Your task to perform on an android device: open device folders in google photos Image 0: 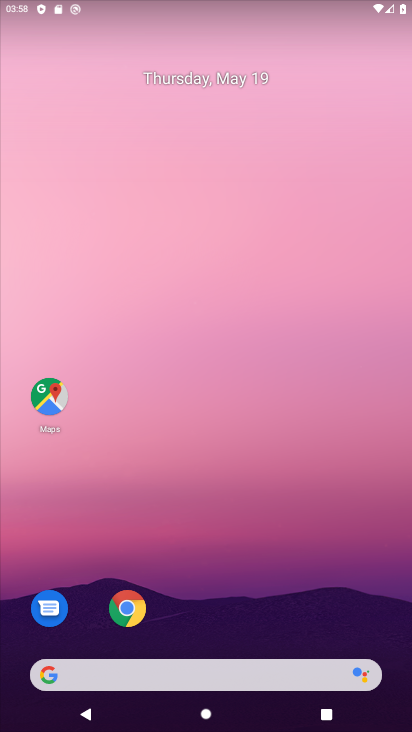
Step 0: drag from (224, 578) to (197, 148)
Your task to perform on an android device: open device folders in google photos Image 1: 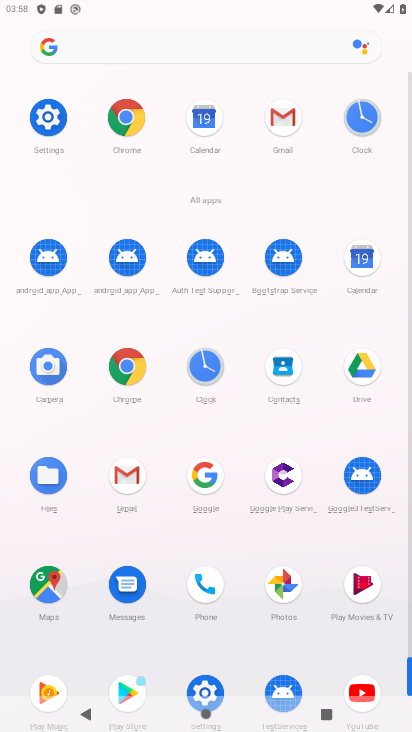
Step 1: click (284, 583)
Your task to perform on an android device: open device folders in google photos Image 2: 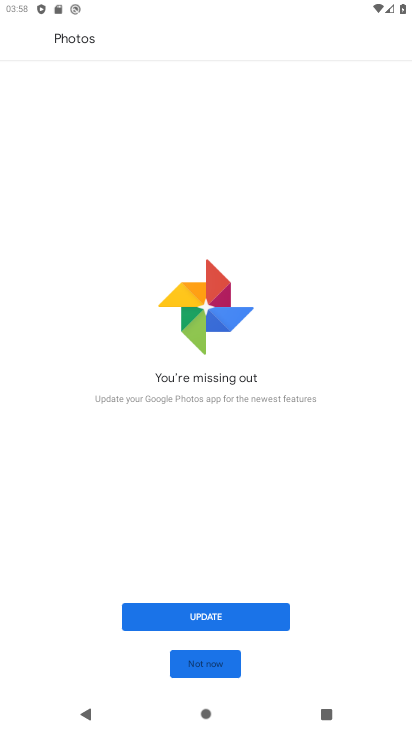
Step 2: click (225, 610)
Your task to perform on an android device: open device folders in google photos Image 3: 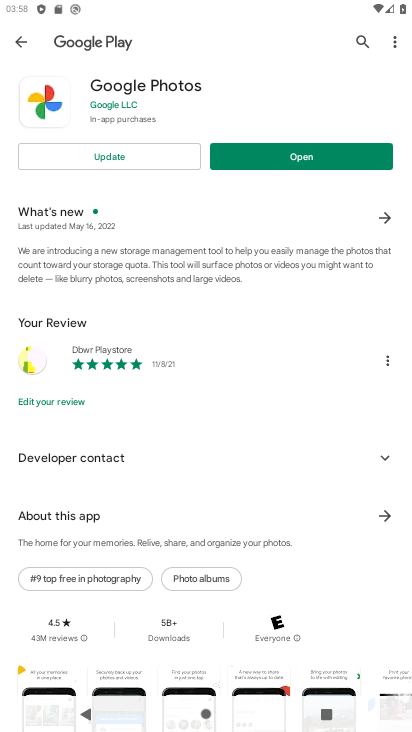
Step 3: click (125, 158)
Your task to perform on an android device: open device folders in google photos Image 4: 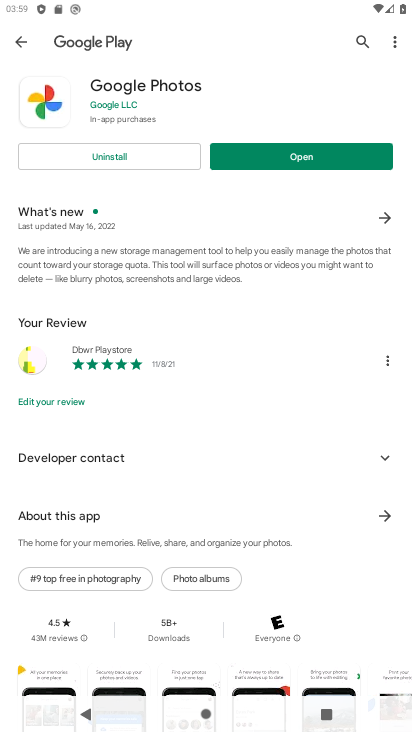
Step 4: click (293, 153)
Your task to perform on an android device: open device folders in google photos Image 5: 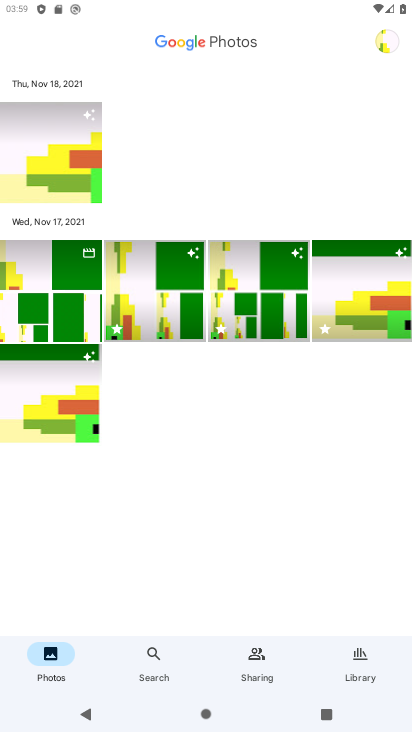
Step 5: click (365, 658)
Your task to perform on an android device: open device folders in google photos Image 6: 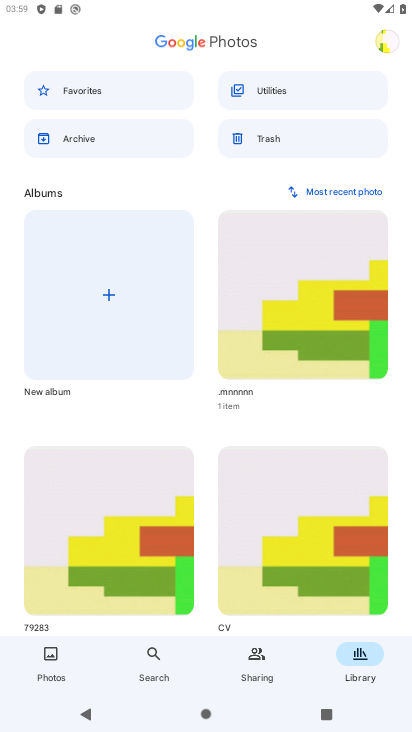
Step 6: drag from (156, 425) to (186, 334)
Your task to perform on an android device: open device folders in google photos Image 7: 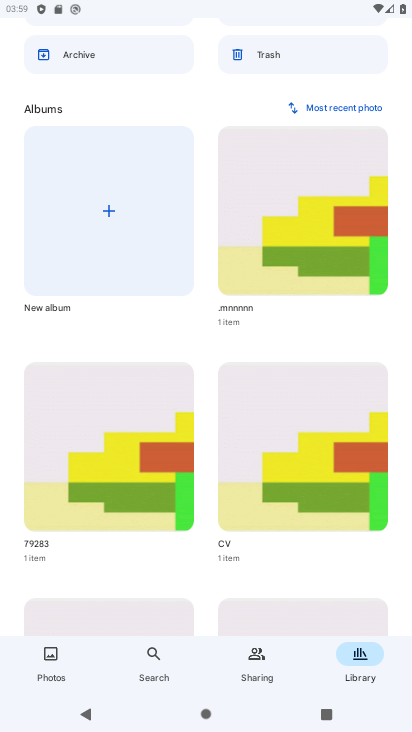
Step 7: drag from (228, 561) to (279, 468)
Your task to perform on an android device: open device folders in google photos Image 8: 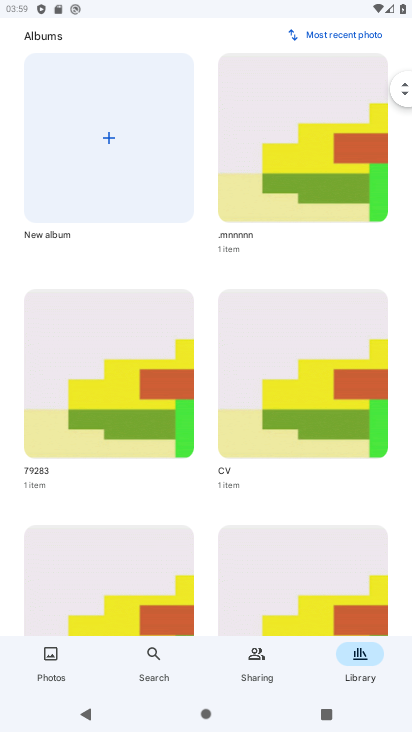
Step 8: drag from (240, 553) to (273, 349)
Your task to perform on an android device: open device folders in google photos Image 9: 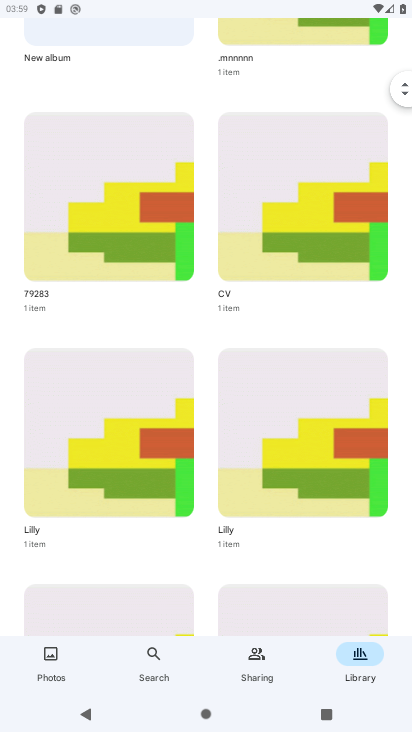
Step 9: drag from (247, 521) to (298, 250)
Your task to perform on an android device: open device folders in google photos Image 10: 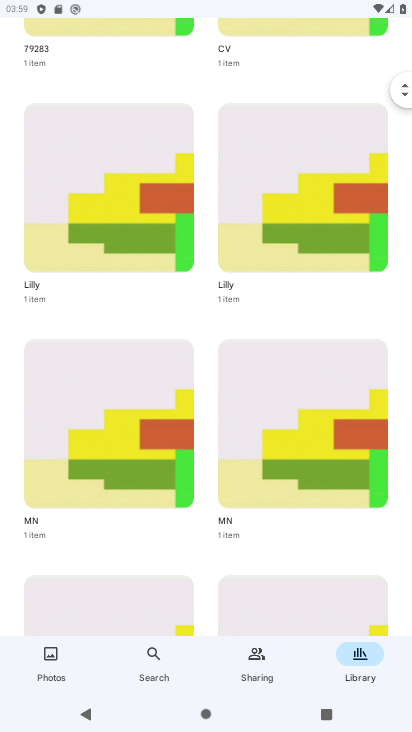
Step 10: drag from (233, 547) to (294, 263)
Your task to perform on an android device: open device folders in google photos Image 11: 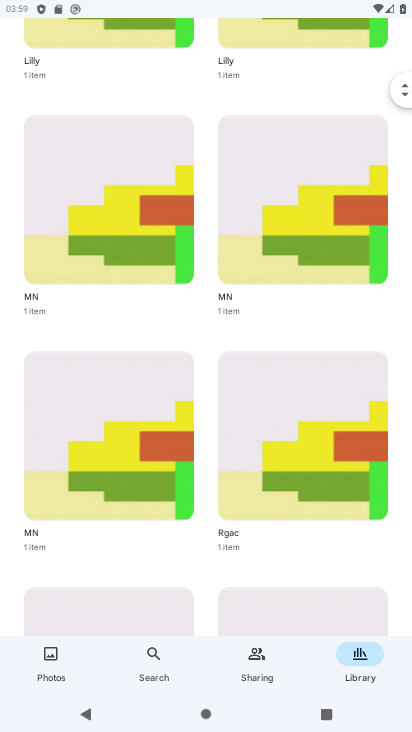
Step 11: drag from (222, 511) to (275, 280)
Your task to perform on an android device: open device folders in google photos Image 12: 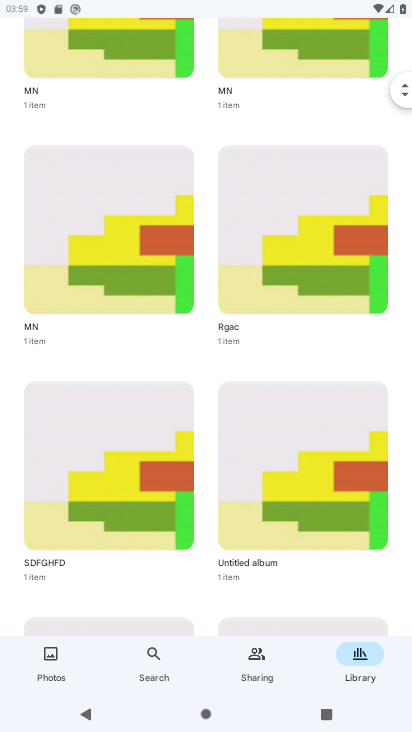
Step 12: drag from (232, 479) to (291, 321)
Your task to perform on an android device: open device folders in google photos Image 13: 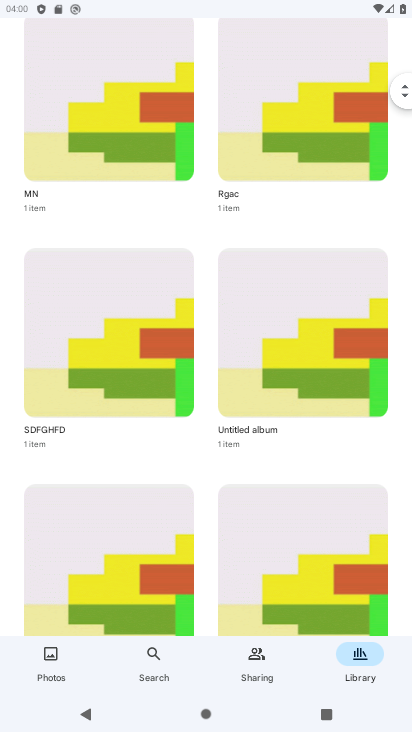
Step 13: drag from (251, 490) to (308, 351)
Your task to perform on an android device: open device folders in google photos Image 14: 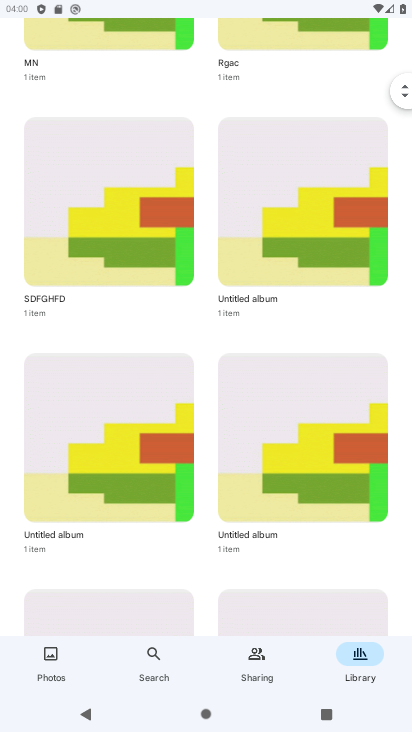
Step 14: drag from (259, 433) to (295, 304)
Your task to perform on an android device: open device folders in google photos Image 15: 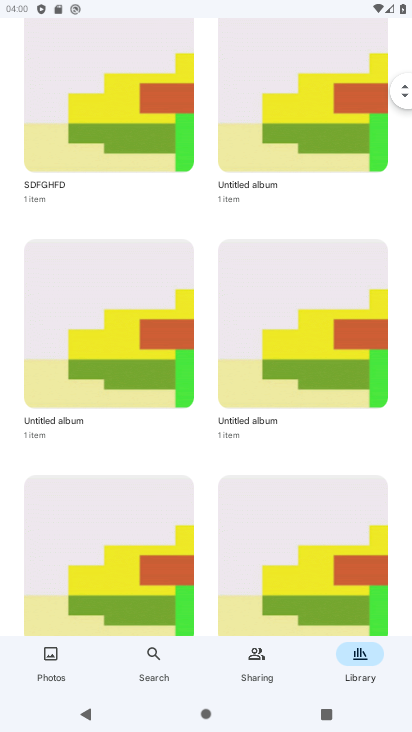
Step 15: drag from (253, 467) to (328, 301)
Your task to perform on an android device: open device folders in google photos Image 16: 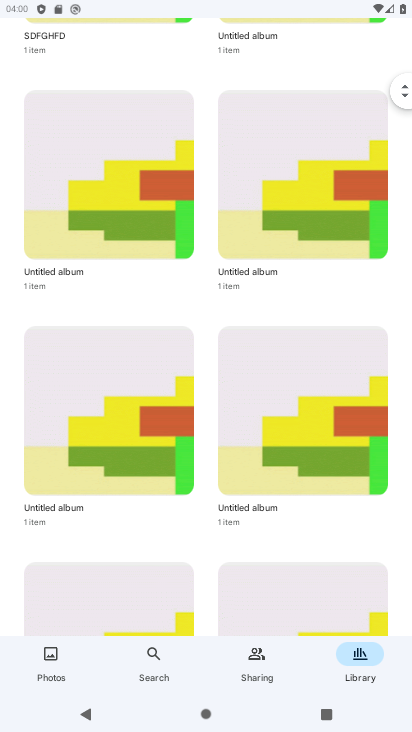
Step 16: drag from (261, 443) to (324, 275)
Your task to perform on an android device: open device folders in google photos Image 17: 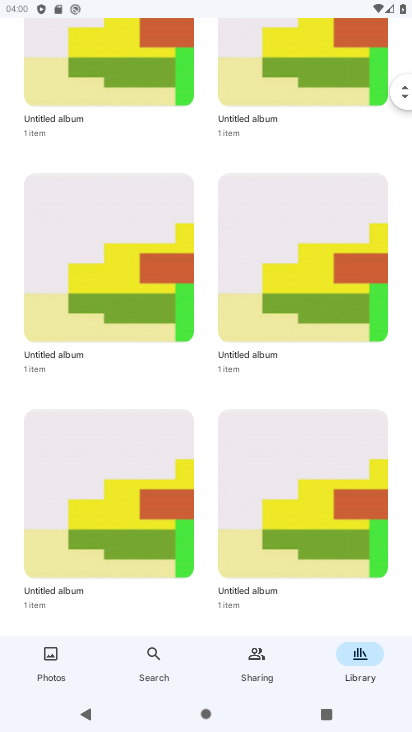
Step 17: drag from (264, 457) to (292, 329)
Your task to perform on an android device: open device folders in google photos Image 18: 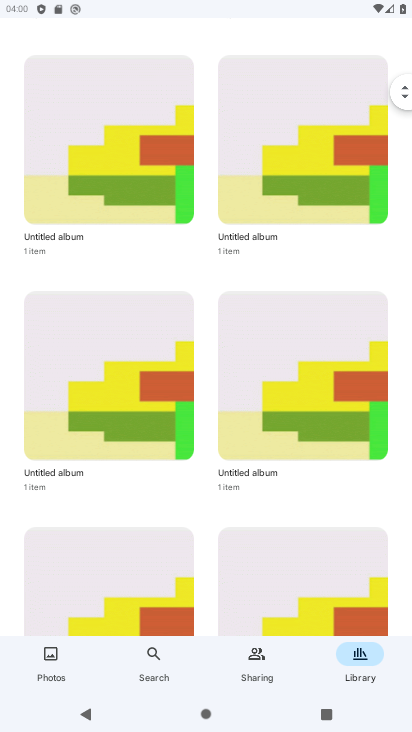
Step 18: drag from (250, 557) to (294, 364)
Your task to perform on an android device: open device folders in google photos Image 19: 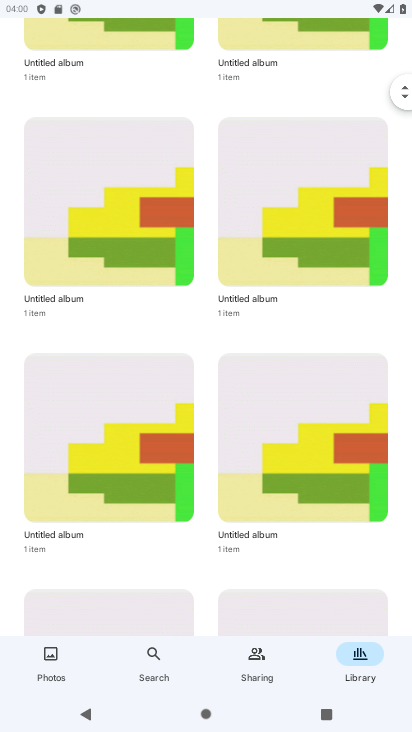
Step 19: drag from (268, 523) to (300, 328)
Your task to perform on an android device: open device folders in google photos Image 20: 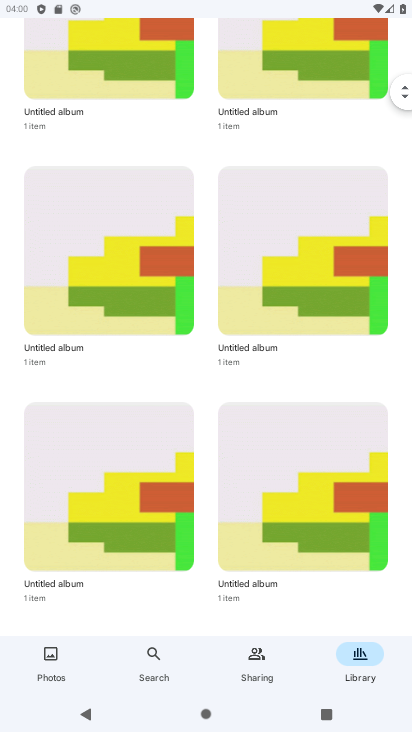
Step 20: drag from (274, 513) to (299, 377)
Your task to perform on an android device: open device folders in google photos Image 21: 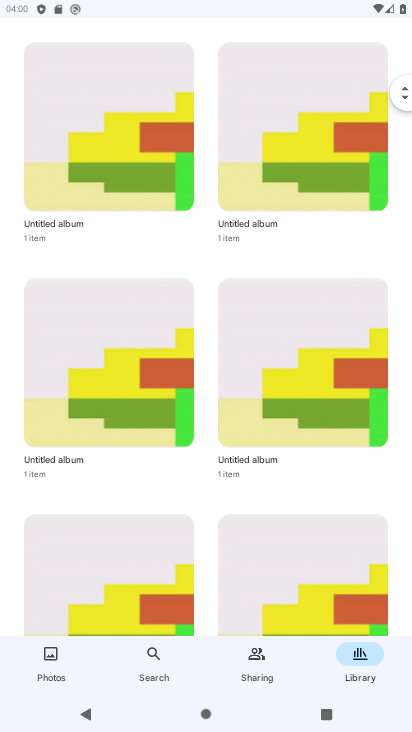
Step 21: drag from (292, 559) to (305, 378)
Your task to perform on an android device: open device folders in google photos Image 22: 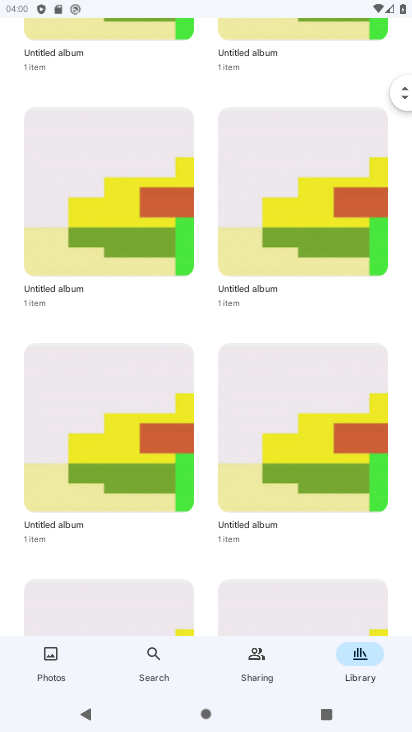
Step 22: drag from (262, 556) to (332, 275)
Your task to perform on an android device: open device folders in google photos Image 23: 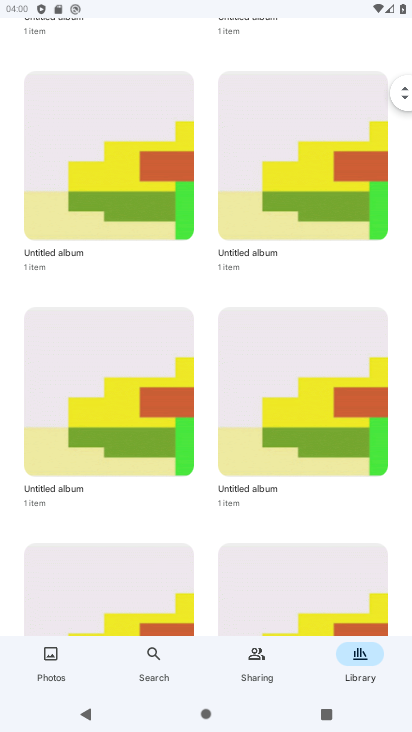
Step 23: drag from (265, 517) to (313, 320)
Your task to perform on an android device: open device folders in google photos Image 24: 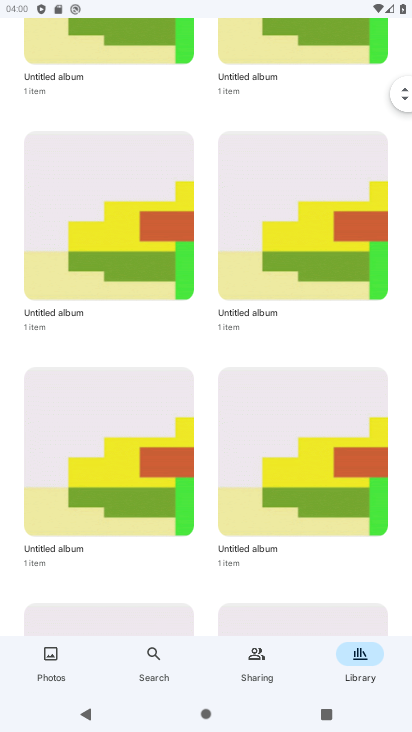
Step 24: drag from (278, 565) to (301, 379)
Your task to perform on an android device: open device folders in google photos Image 25: 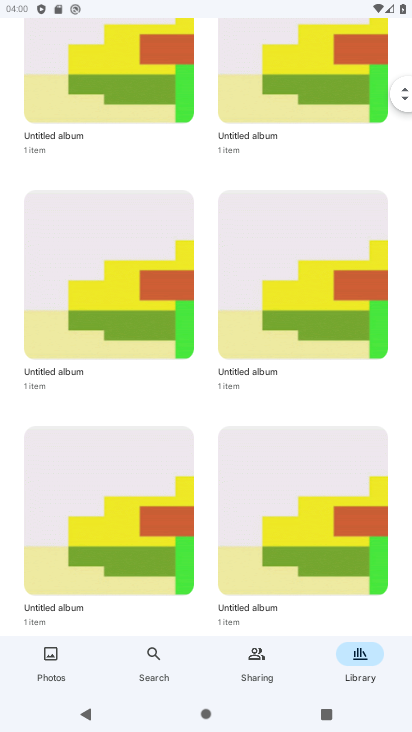
Step 25: drag from (249, 476) to (289, 347)
Your task to perform on an android device: open device folders in google photos Image 26: 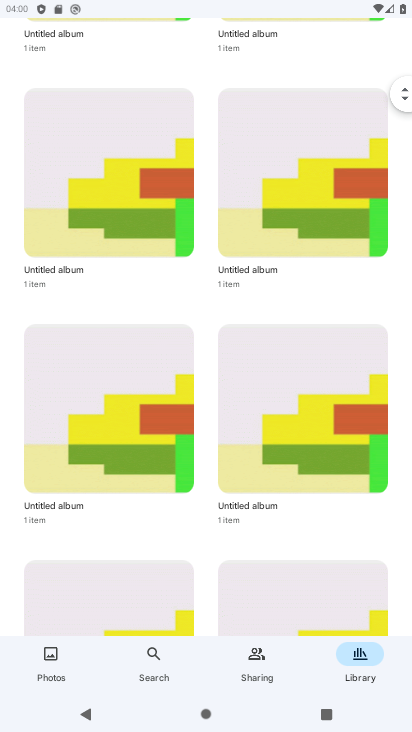
Step 26: drag from (252, 480) to (278, 311)
Your task to perform on an android device: open device folders in google photos Image 27: 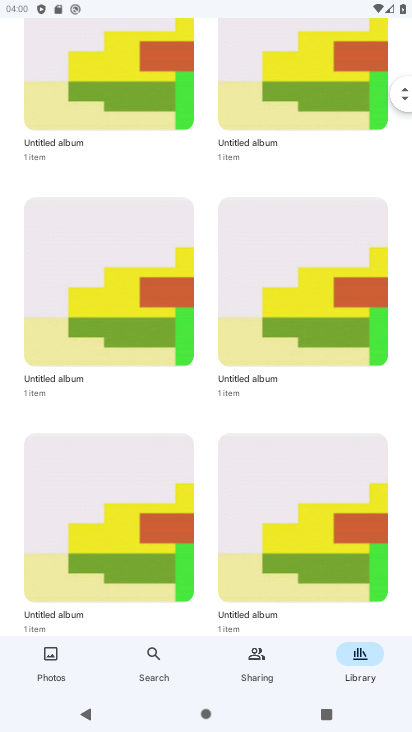
Step 27: drag from (238, 452) to (264, 264)
Your task to perform on an android device: open device folders in google photos Image 28: 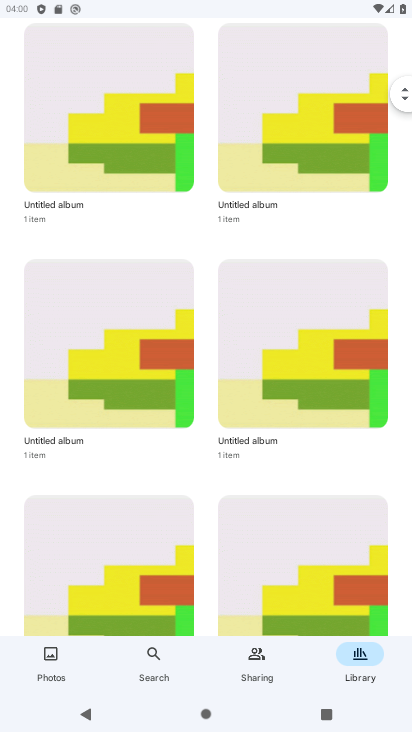
Step 28: drag from (268, 475) to (283, 258)
Your task to perform on an android device: open device folders in google photos Image 29: 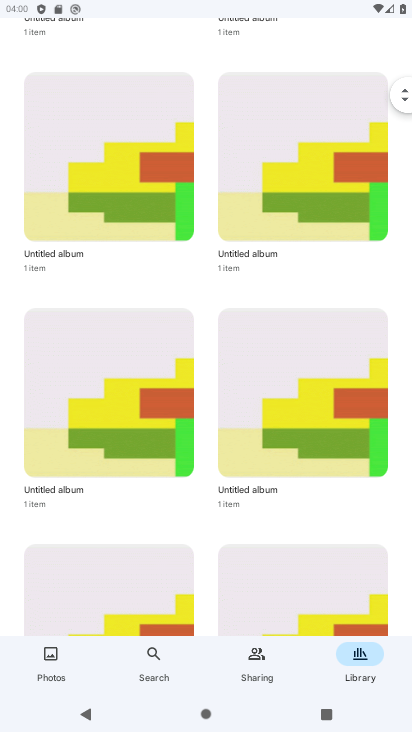
Step 29: drag from (275, 284) to (263, 534)
Your task to perform on an android device: open device folders in google photos Image 30: 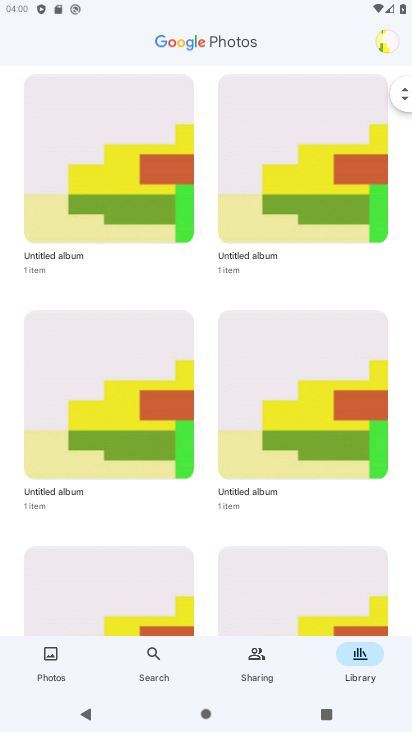
Step 30: drag from (321, 197) to (278, 523)
Your task to perform on an android device: open device folders in google photos Image 31: 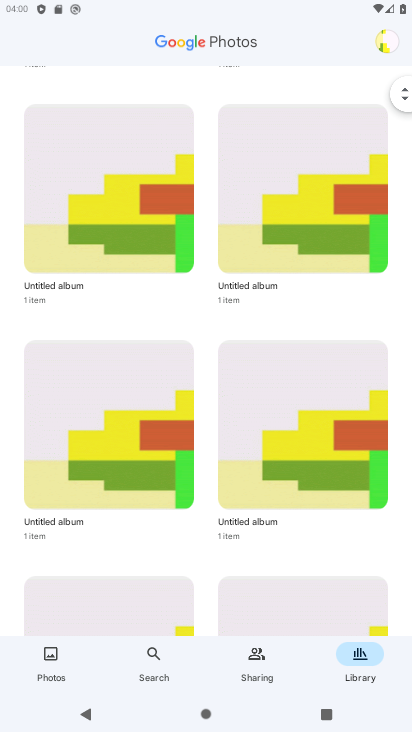
Step 31: click (385, 42)
Your task to perform on an android device: open device folders in google photos Image 32: 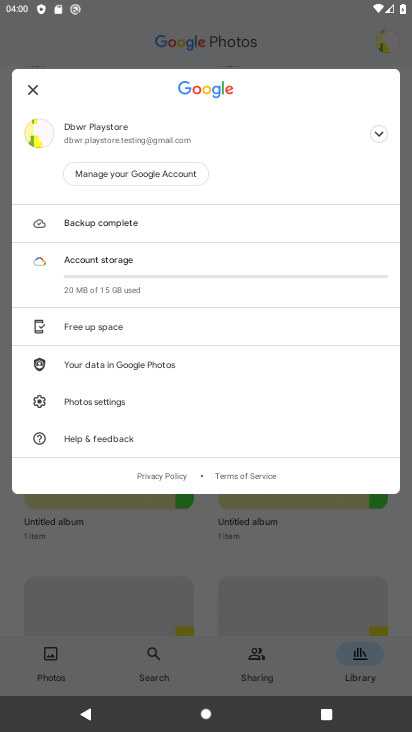
Step 32: click (121, 399)
Your task to perform on an android device: open device folders in google photos Image 33: 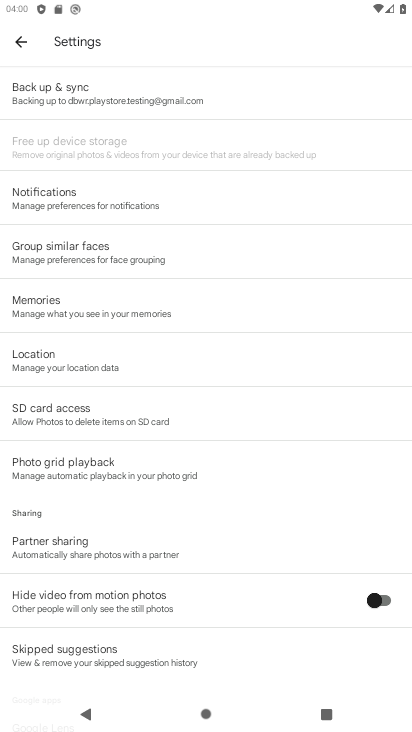
Step 33: drag from (114, 448) to (128, 352)
Your task to perform on an android device: open device folders in google photos Image 34: 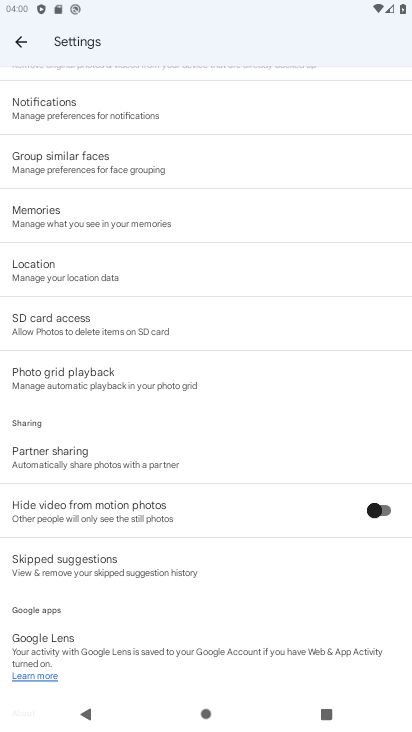
Step 34: drag from (130, 445) to (150, 371)
Your task to perform on an android device: open device folders in google photos Image 35: 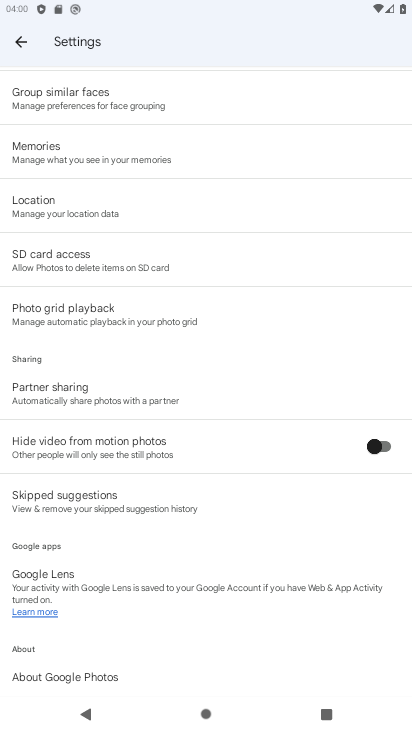
Step 35: drag from (135, 509) to (174, 383)
Your task to perform on an android device: open device folders in google photos Image 36: 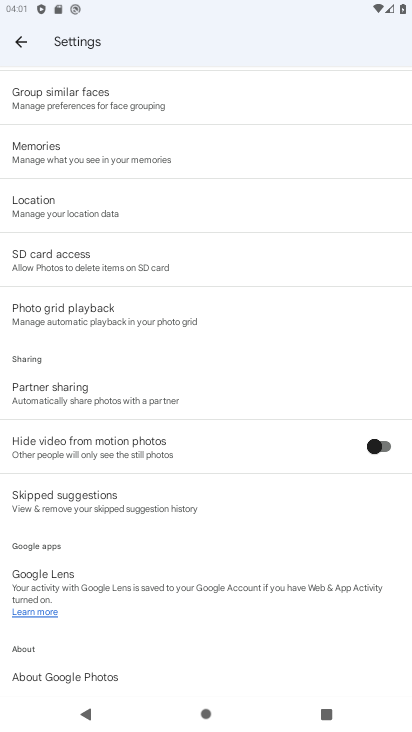
Step 36: drag from (170, 351) to (163, 476)
Your task to perform on an android device: open device folders in google photos Image 37: 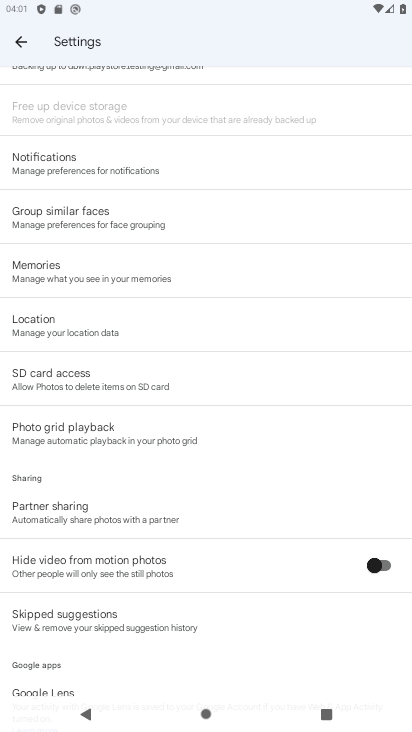
Step 37: drag from (126, 252) to (169, 388)
Your task to perform on an android device: open device folders in google photos Image 38: 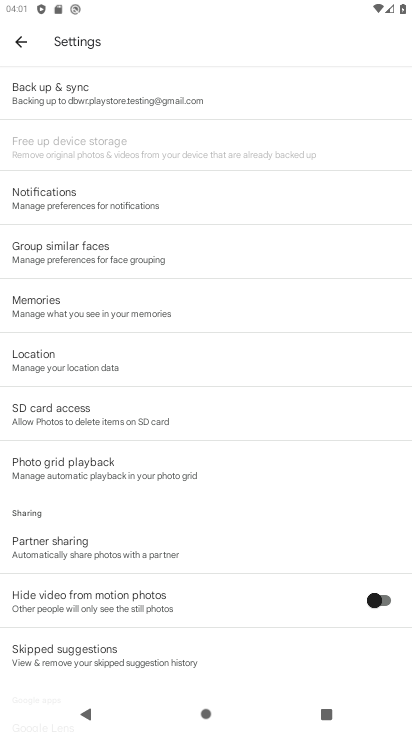
Step 38: click (105, 97)
Your task to perform on an android device: open device folders in google photos Image 39: 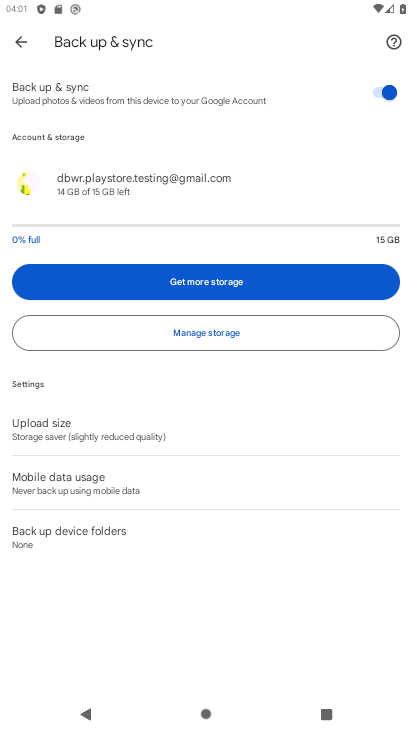
Step 39: click (14, 37)
Your task to perform on an android device: open device folders in google photos Image 40: 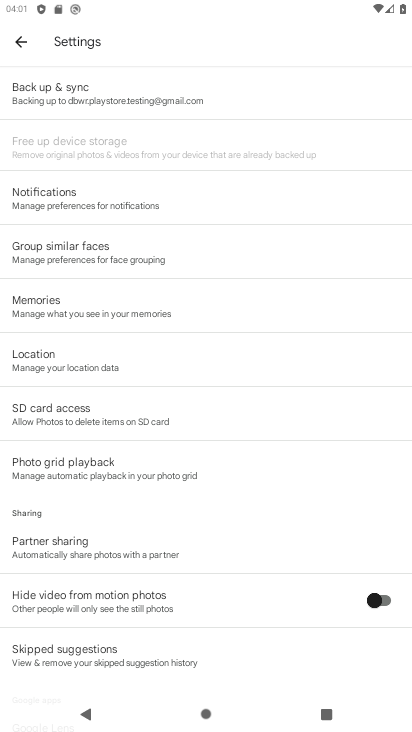
Step 40: click (110, 212)
Your task to perform on an android device: open device folders in google photos Image 41: 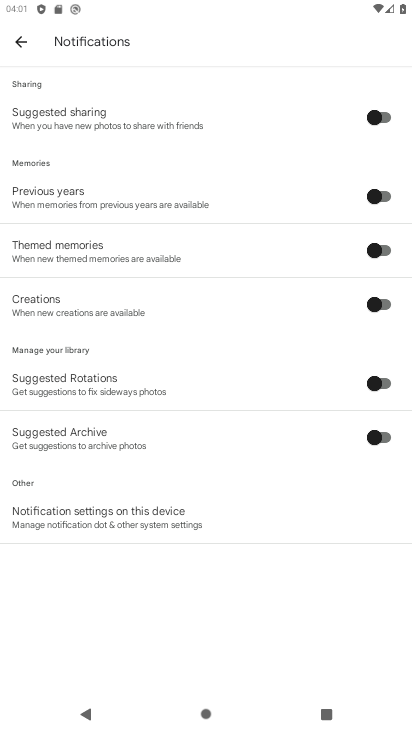
Step 41: click (74, 528)
Your task to perform on an android device: open device folders in google photos Image 42: 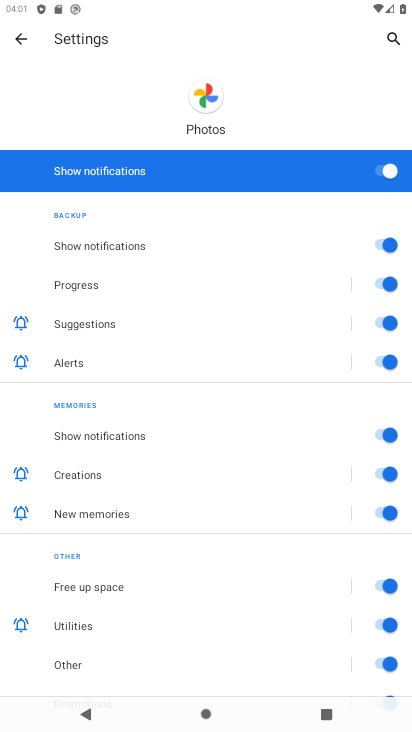
Step 42: drag from (146, 512) to (141, 421)
Your task to perform on an android device: open device folders in google photos Image 43: 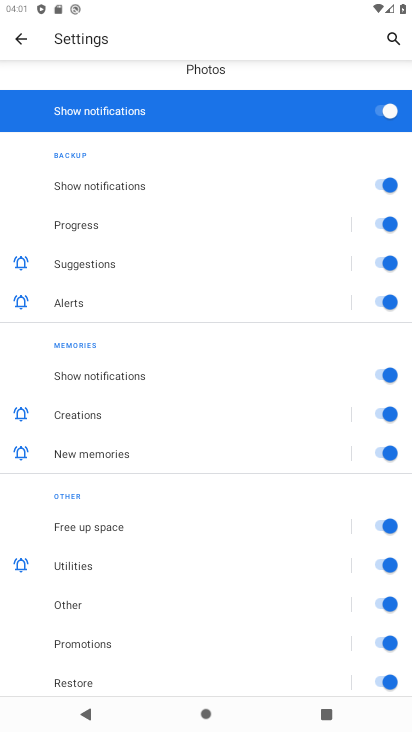
Step 43: drag from (137, 545) to (162, 463)
Your task to perform on an android device: open device folders in google photos Image 44: 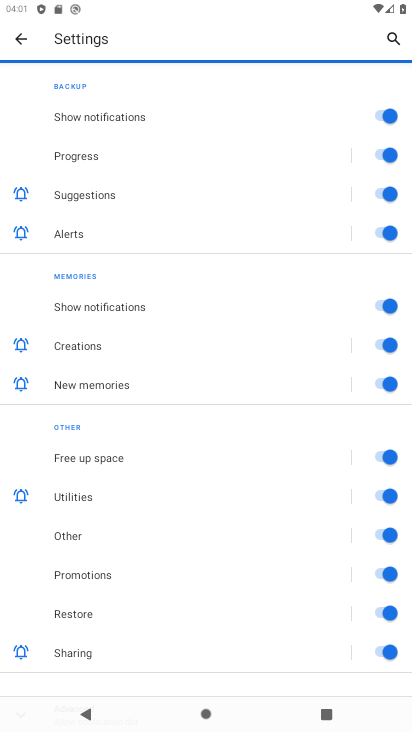
Step 44: drag from (140, 582) to (181, 476)
Your task to perform on an android device: open device folders in google photos Image 45: 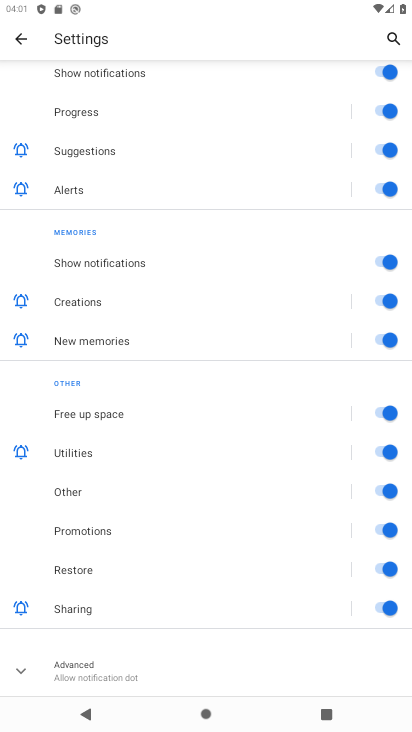
Step 45: drag from (151, 616) to (176, 531)
Your task to perform on an android device: open device folders in google photos Image 46: 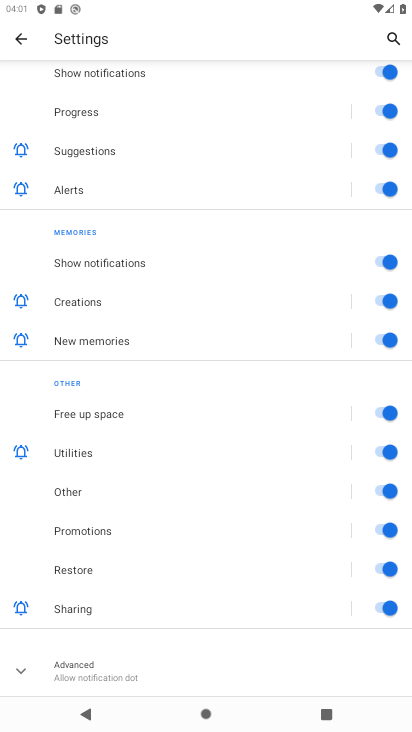
Step 46: click (123, 673)
Your task to perform on an android device: open device folders in google photos Image 47: 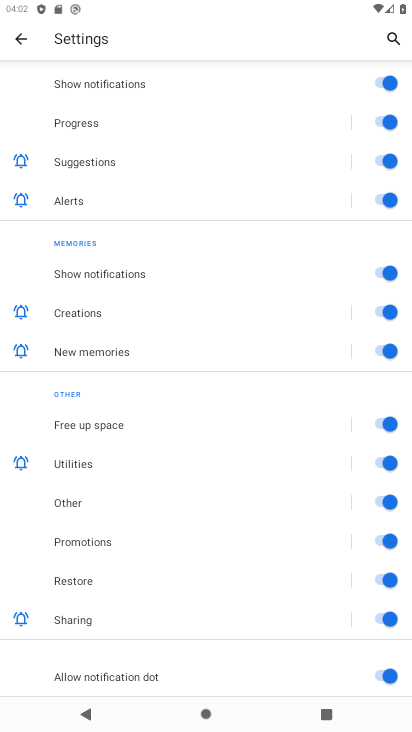
Step 47: task complete